Your task to perform on an android device: toggle priority inbox in the gmail app Image 0: 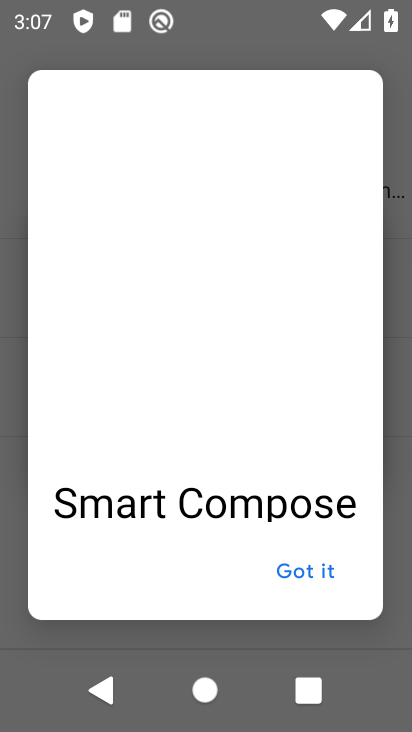
Step 0: press home button
Your task to perform on an android device: toggle priority inbox in the gmail app Image 1: 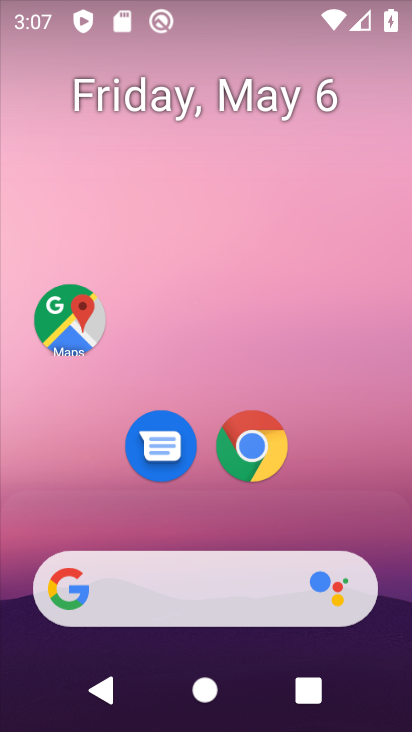
Step 1: drag from (366, 475) to (344, 107)
Your task to perform on an android device: toggle priority inbox in the gmail app Image 2: 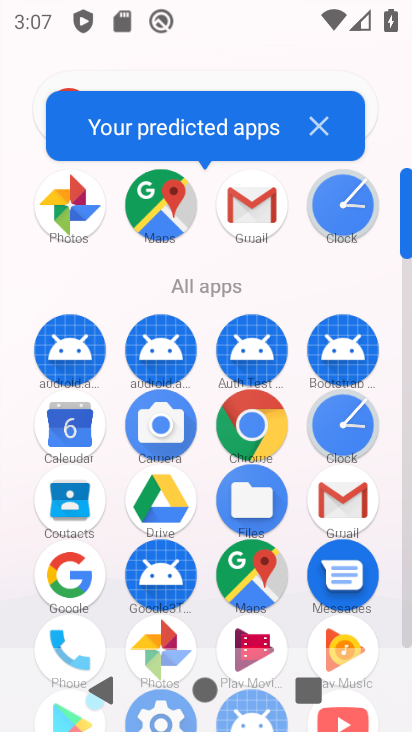
Step 2: click (250, 220)
Your task to perform on an android device: toggle priority inbox in the gmail app Image 3: 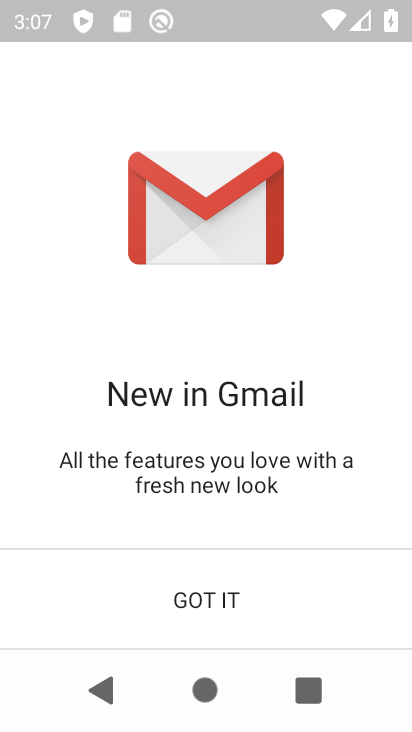
Step 3: click (226, 595)
Your task to perform on an android device: toggle priority inbox in the gmail app Image 4: 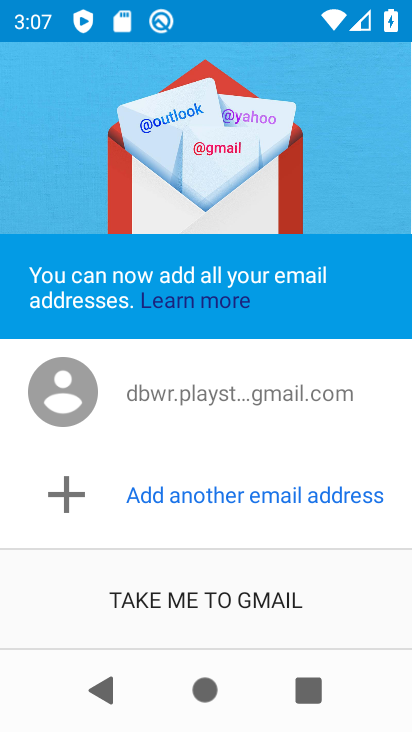
Step 4: click (197, 597)
Your task to perform on an android device: toggle priority inbox in the gmail app Image 5: 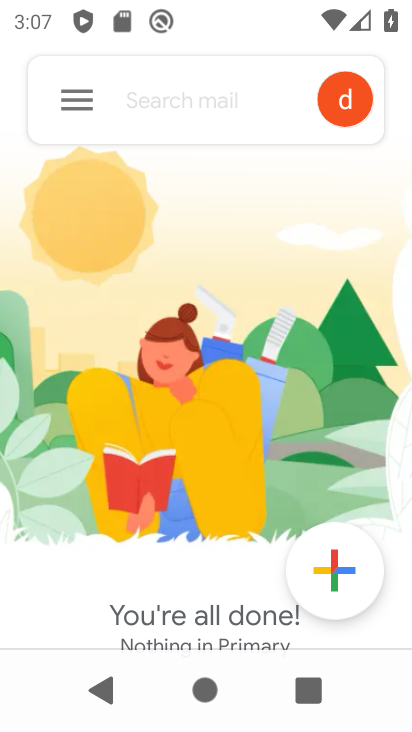
Step 5: click (68, 105)
Your task to perform on an android device: toggle priority inbox in the gmail app Image 6: 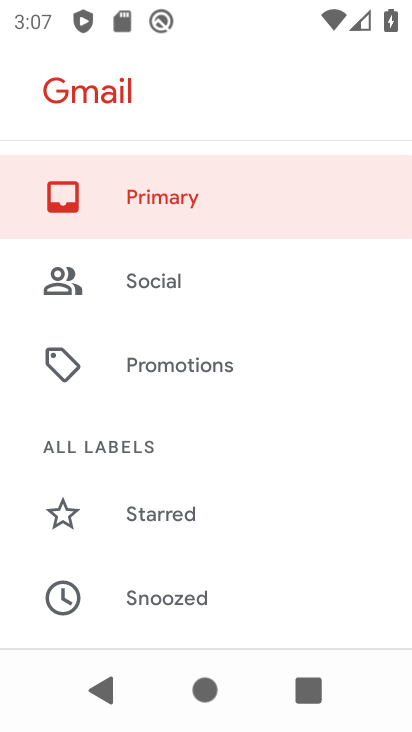
Step 6: drag from (185, 610) to (208, 266)
Your task to perform on an android device: toggle priority inbox in the gmail app Image 7: 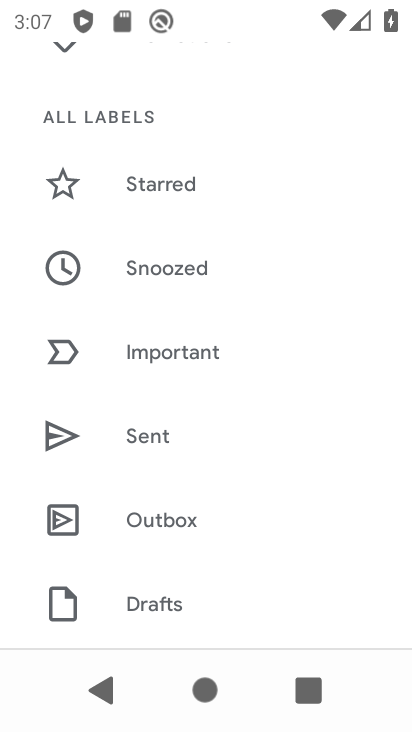
Step 7: drag from (210, 561) to (219, 199)
Your task to perform on an android device: toggle priority inbox in the gmail app Image 8: 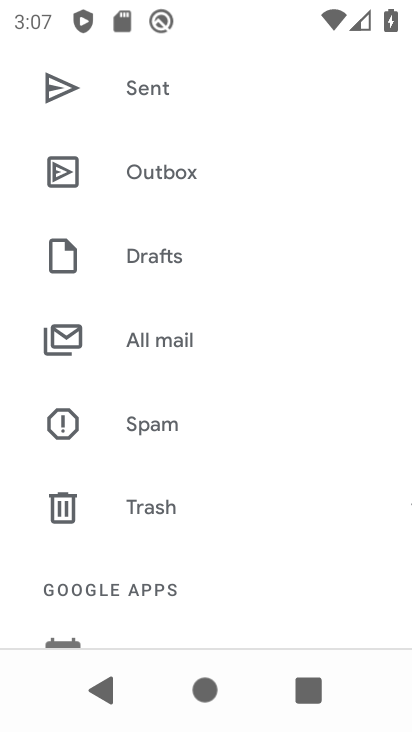
Step 8: drag from (161, 584) to (177, 318)
Your task to perform on an android device: toggle priority inbox in the gmail app Image 9: 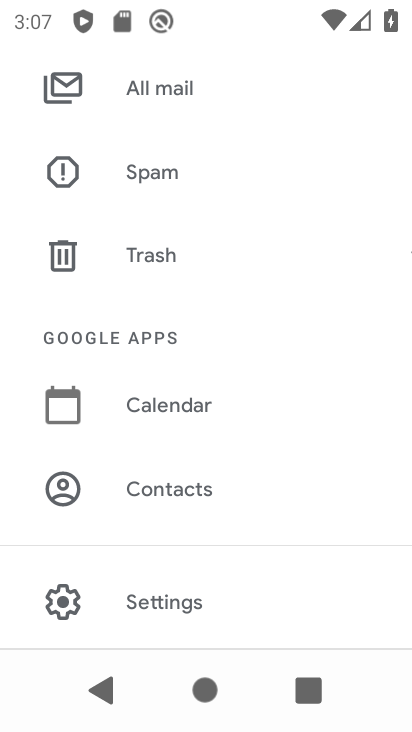
Step 9: click (154, 609)
Your task to perform on an android device: toggle priority inbox in the gmail app Image 10: 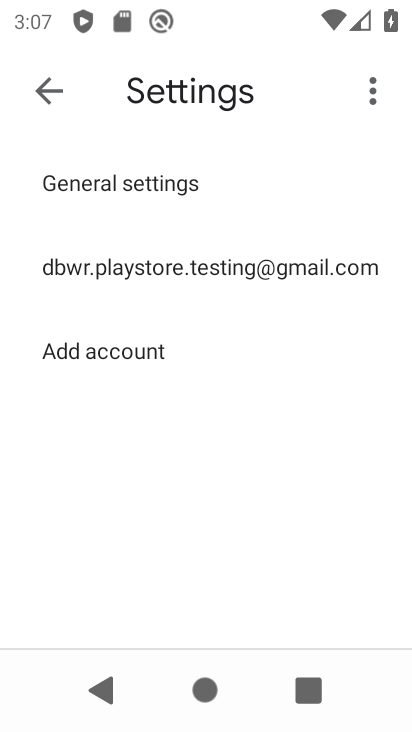
Step 10: click (155, 274)
Your task to perform on an android device: toggle priority inbox in the gmail app Image 11: 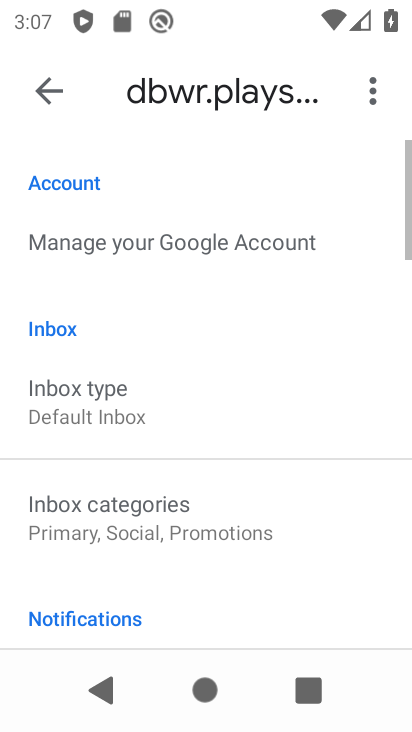
Step 11: click (137, 417)
Your task to perform on an android device: toggle priority inbox in the gmail app Image 12: 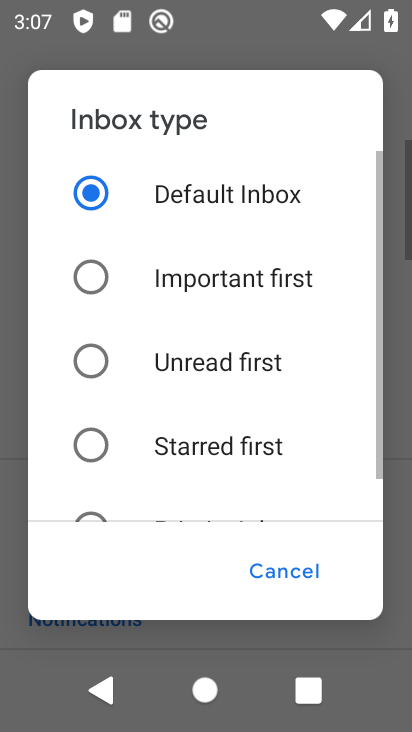
Step 12: drag from (181, 478) to (197, 235)
Your task to perform on an android device: toggle priority inbox in the gmail app Image 13: 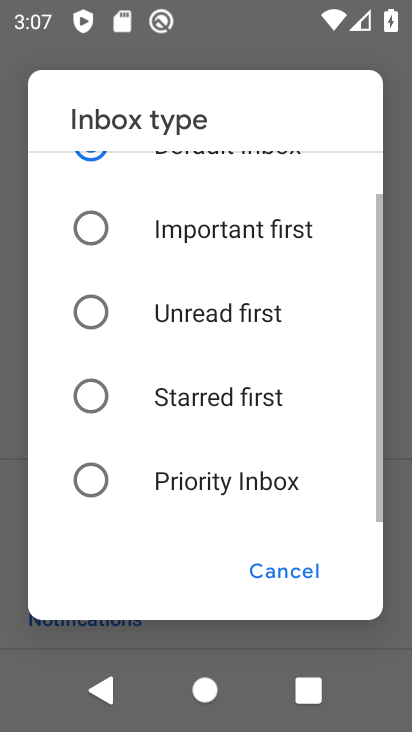
Step 13: click (177, 495)
Your task to perform on an android device: toggle priority inbox in the gmail app Image 14: 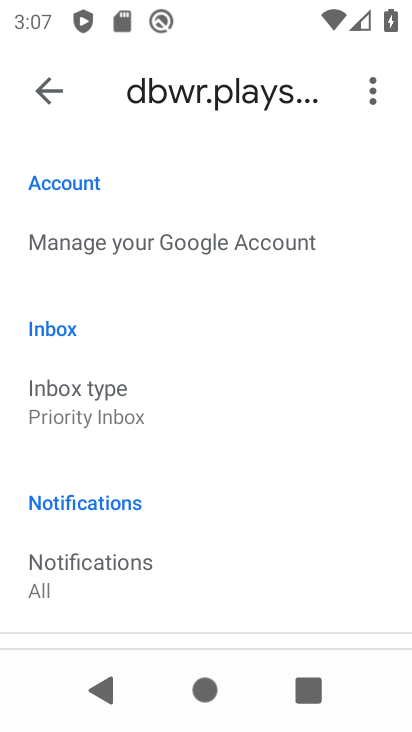
Step 14: task complete